Your task to perform on an android device: Open calendar and show me the fourth week of next month Image 0: 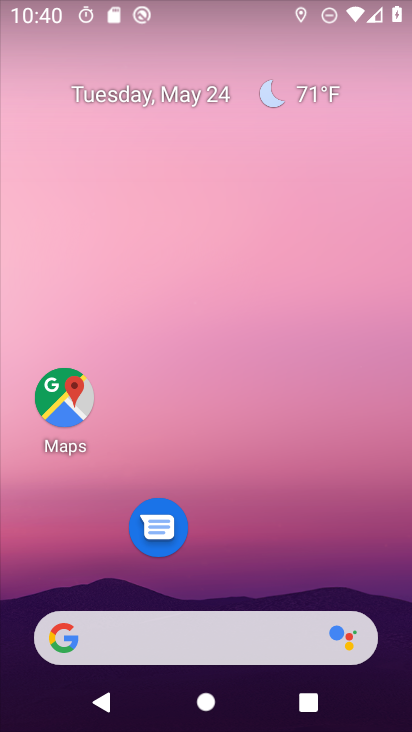
Step 0: drag from (264, 496) to (218, 100)
Your task to perform on an android device: Open calendar and show me the fourth week of next month Image 1: 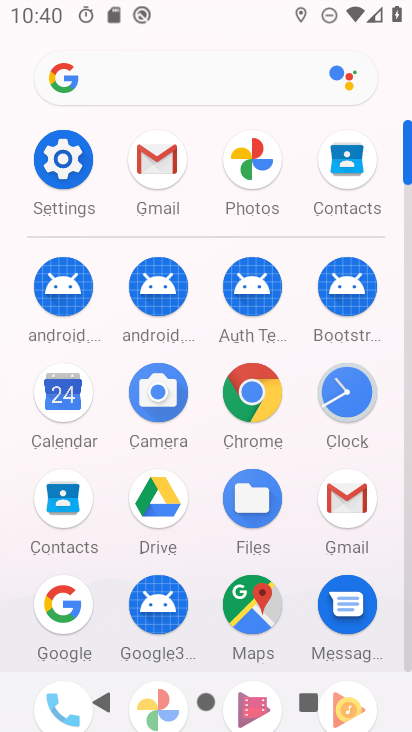
Step 1: click (74, 405)
Your task to perform on an android device: Open calendar and show me the fourth week of next month Image 2: 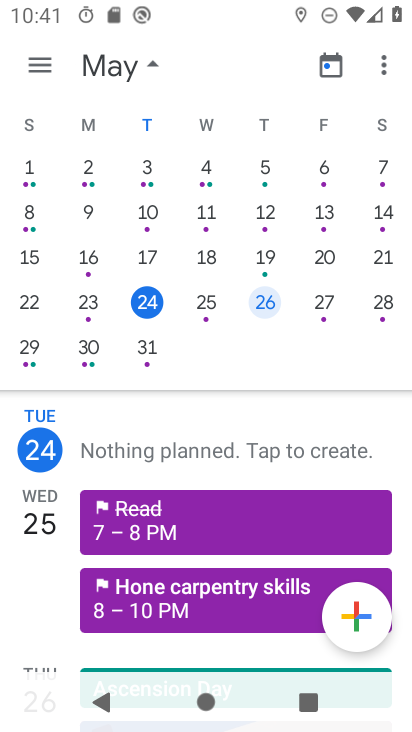
Step 2: drag from (385, 359) to (7, 321)
Your task to perform on an android device: Open calendar and show me the fourth week of next month Image 3: 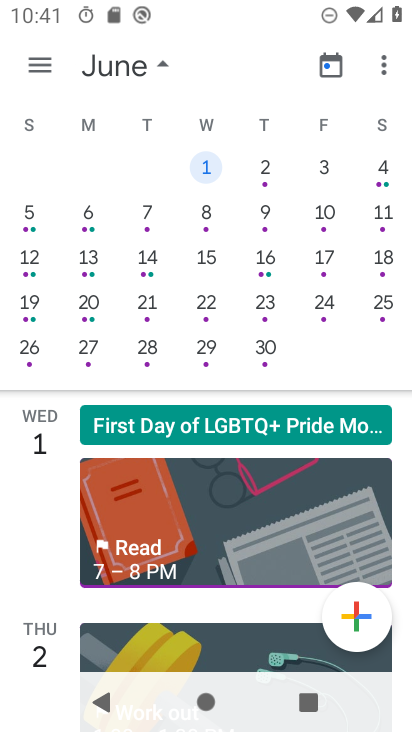
Step 3: click (206, 299)
Your task to perform on an android device: Open calendar and show me the fourth week of next month Image 4: 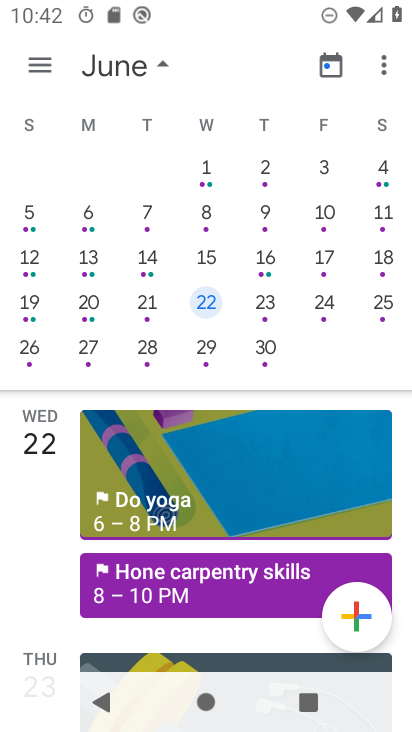
Step 4: task complete